Your task to perform on an android device: Go to calendar. Show me events next week Image 0: 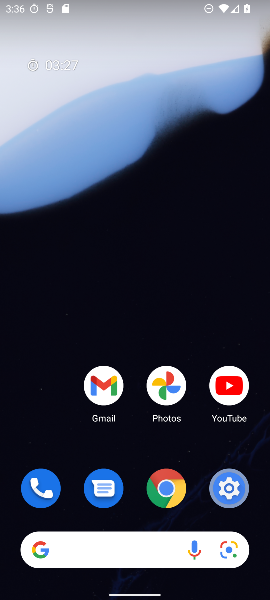
Step 0: drag from (205, 463) to (184, 149)
Your task to perform on an android device: Go to calendar. Show me events next week Image 1: 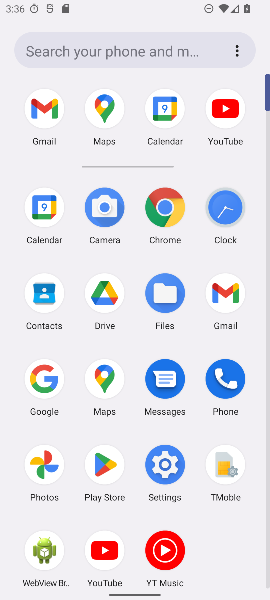
Step 1: click (159, 117)
Your task to perform on an android device: Go to calendar. Show me events next week Image 2: 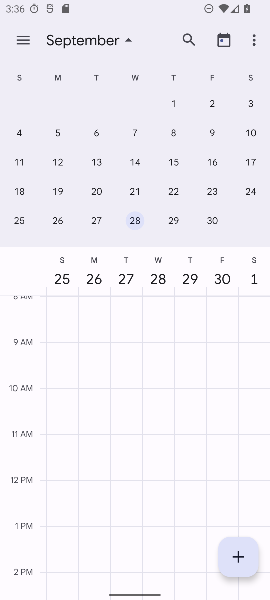
Step 2: click (28, 43)
Your task to perform on an android device: Go to calendar. Show me events next week Image 3: 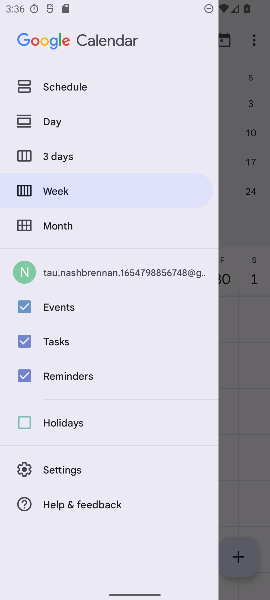
Step 3: click (25, 378)
Your task to perform on an android device: Go to calendar. Show me events next week Image 4: 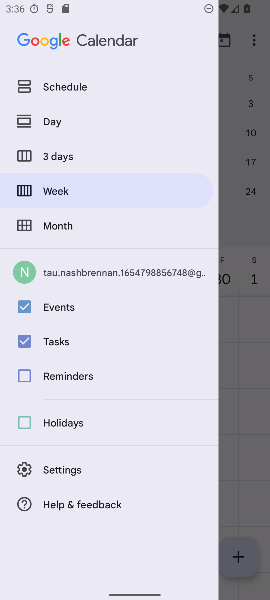
Step 4: click (22, 334)
Your task to perform on an android device: Go to calendar. Show me events next week Image 5: 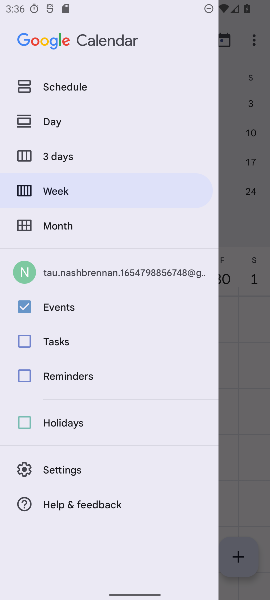
Step 5: click (62, 191)
Your task to perform on an android device: Go to calendar. Show me events next week Image 6: 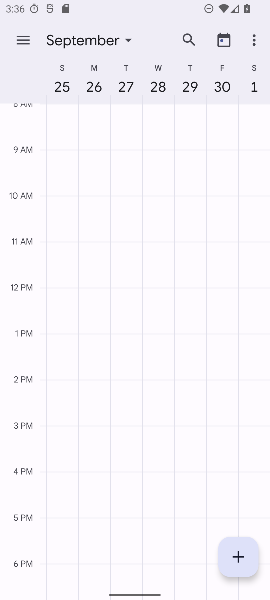
Step 6: click (90, 44)
Your task to perform on an android device: Go to calendar. Show me events next week Image 7: 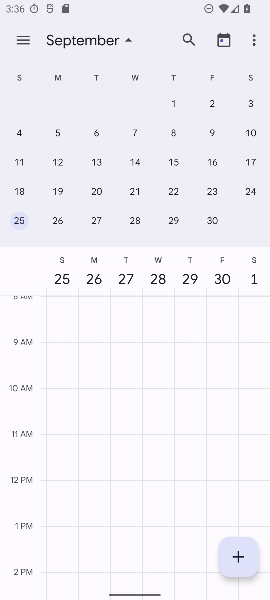
Step 7: drag from (3, 150) to (253, 159)
Your task to perform on an android device: Go to calendar. Show me events next week Image 8: 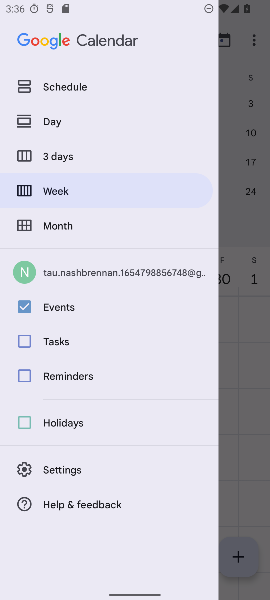
Step 8: click (253, 160)
Your task to perform on an android device: Go to calendar. Show me events next week Image 9: 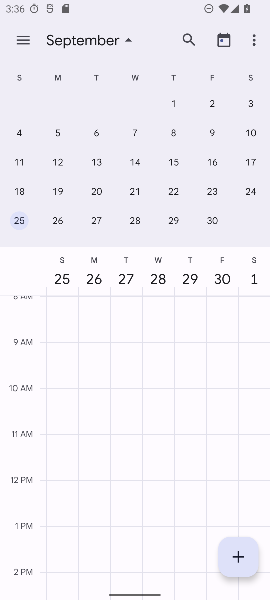
Step 9: drag from (87, 158) to (257, 174)
Your task to perform on an android device: Go to calendar. Show me events next week Image 10: 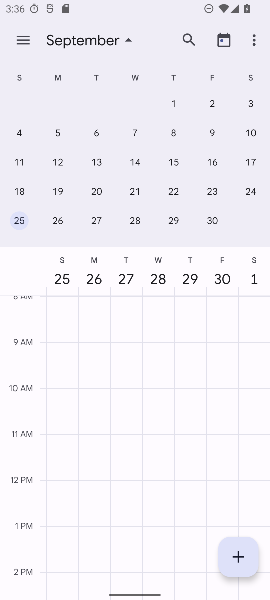
Step 10: drag from (54, 183) to (235, 172)
Your task to perform on an android device: Go to calendar. Show me events next week Image 11: 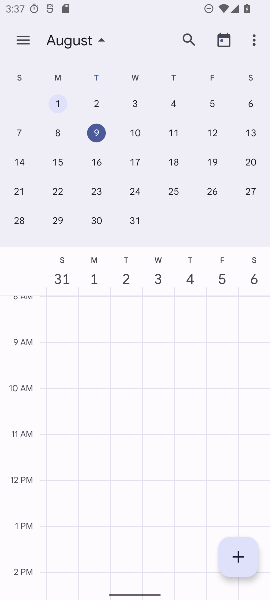
Step 11: click (98, 164)
Your task to perform on an android device: Go to calendar. Show me events next week Image 12: 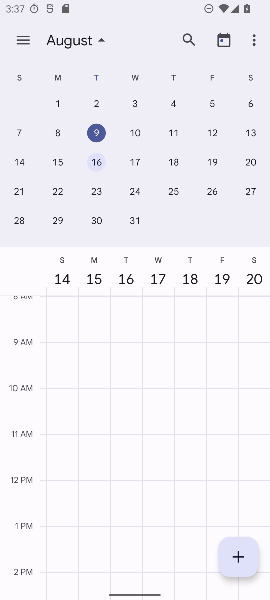
Step 12: task complete